Your task to perform on an android device: Show me popular videos on Youtube Image 0: 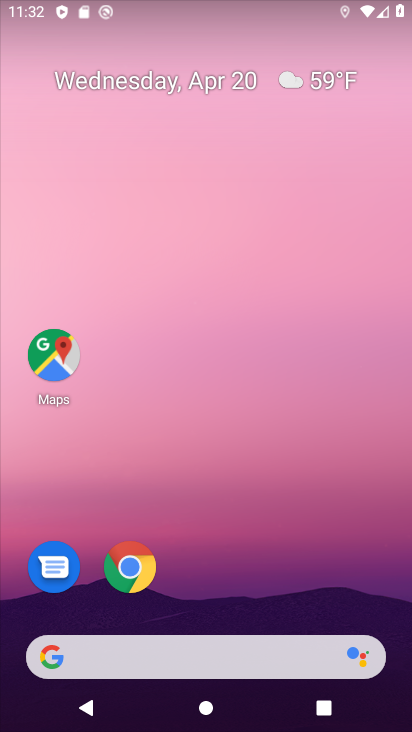
Step 0: drag from (268, 575) to (142, 14)
Your task to perform on an android device: Show me popular videos on Youtube Image 1: 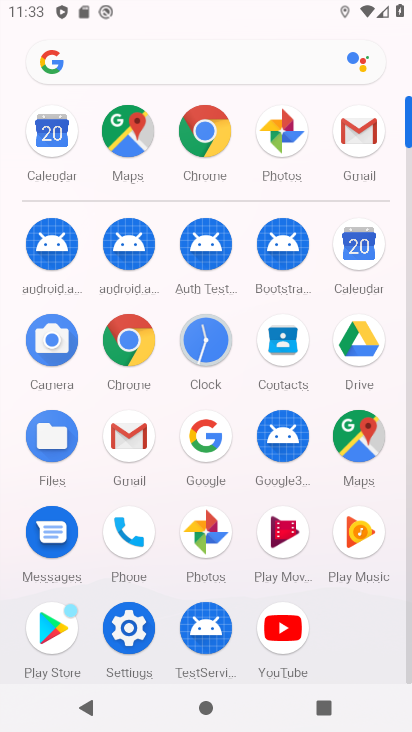
Step 1: click (287, 629)
Your task to perform on an android device: Show me popular videos on Youtube Image 2: 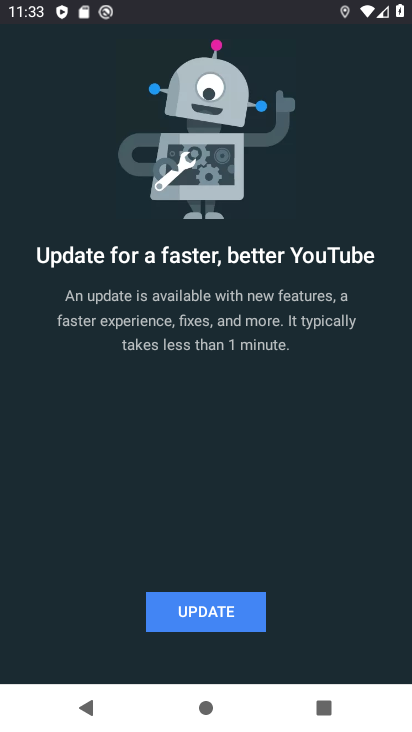
Step 2: click (180, 602)
Your task to perform on an android device: Show me popular videos on Youtube Image 3: 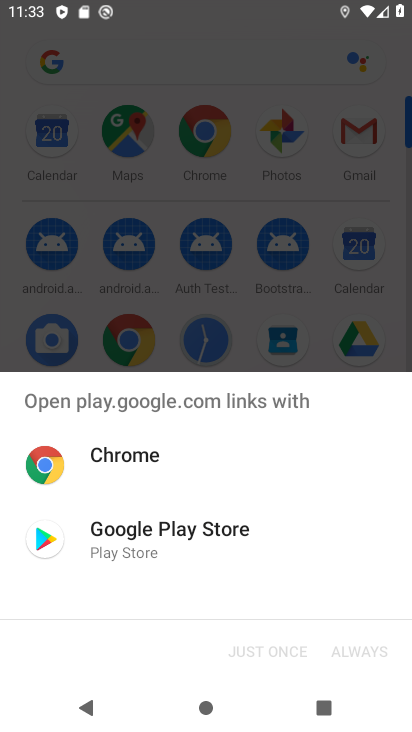
Step 3: click (170, 539)
Your task to perform on an android device: Show me popular videos on Youtube Image 4: 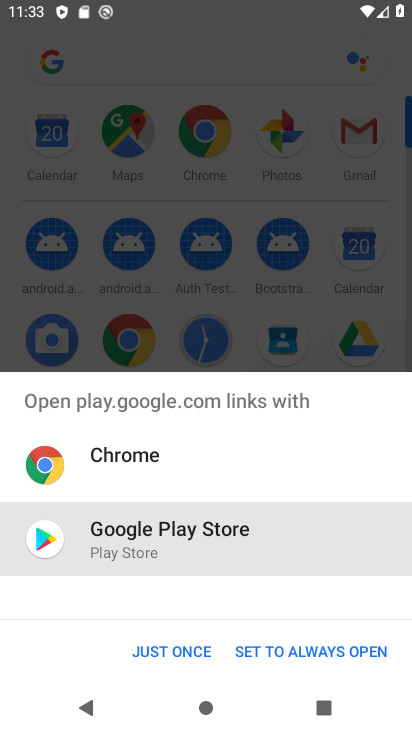
Step 4: click (158, 646)
Your task to perform on an android device: Show me popular videos on Youtube Image 5: 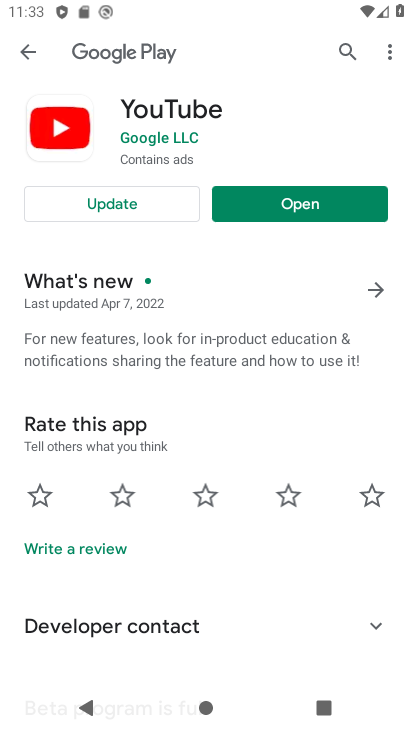
Step 5: click (69, 194)
Your task to perform on an android device: Show me popular videos on Youtube Image 6: 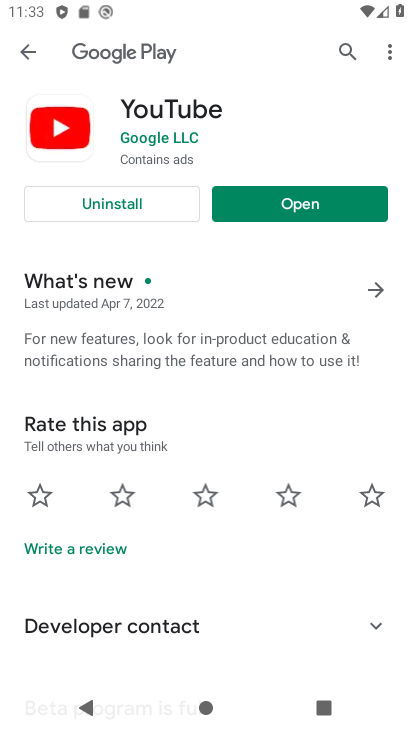
Step 6: click (297, 208)
Your task to perform on an android device: Show me popular videos on Youtube Image 7: 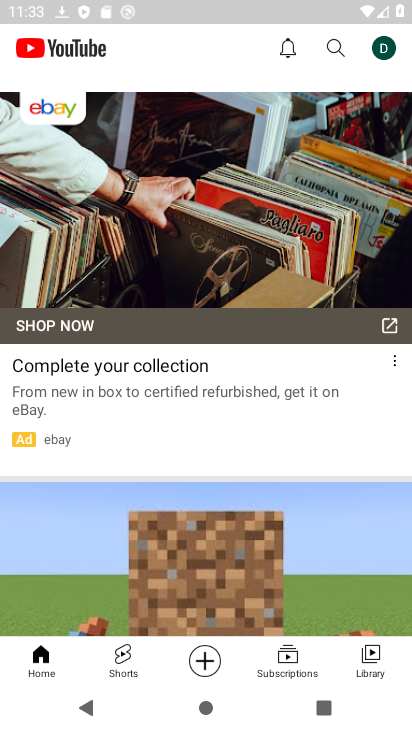
Step 7: drag from (32, 169) to (35, 450)
Your task to perform on an android device: Show me popular videos on Youtube Image 8: 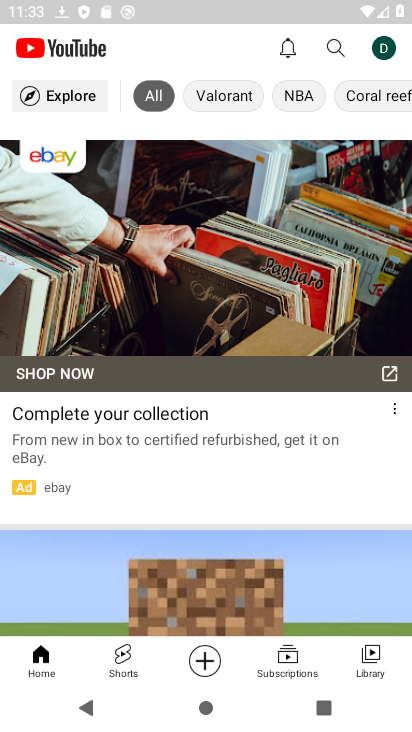
Step 8: click (27, 95)
Your task to perform on an android device: Show me popular videos on Youtube Image 9: 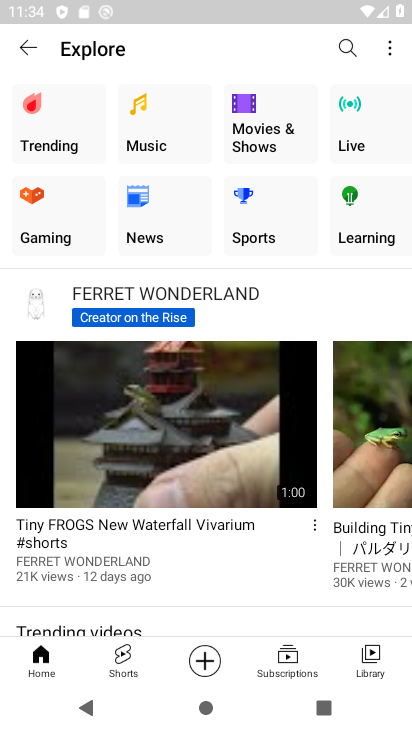
Step 9: click (41, 128)
Your task to perform on an android device: Show me popular videos on Youtube Image 10: 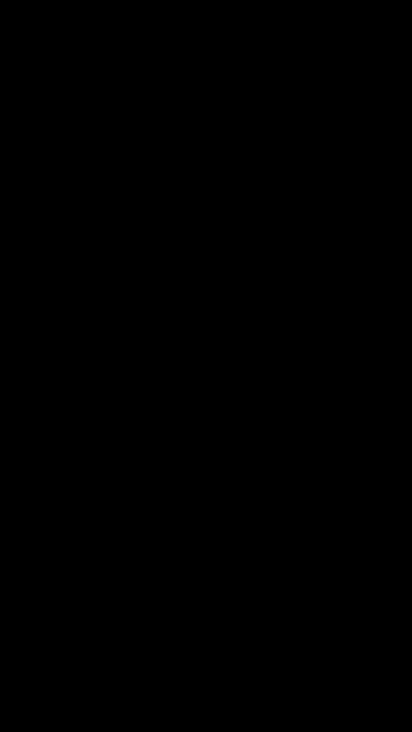
Step 10: task complete